Your task to perform on an android device: Go to notification settings Image 0: 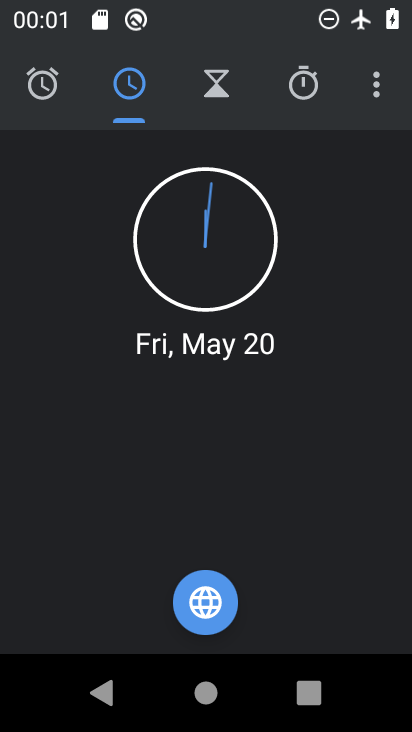
Step 0: press home button
Your task to perform on an android device: Go to notification settings Image 1: 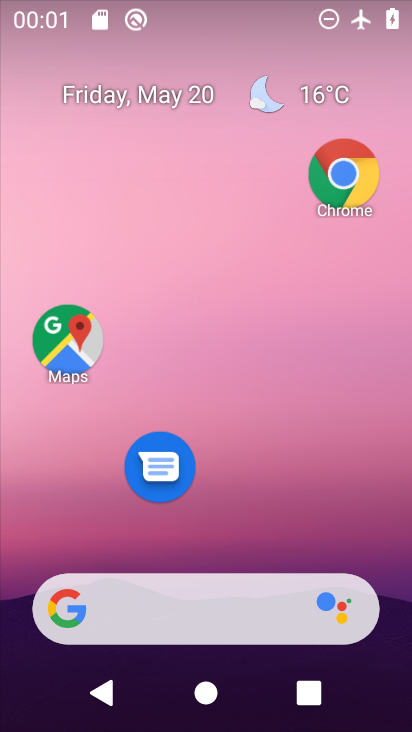
Step 1: drag from (253, 520) to (261, 234)
Your task to perform on an android device: Go to notification settings Image 2: 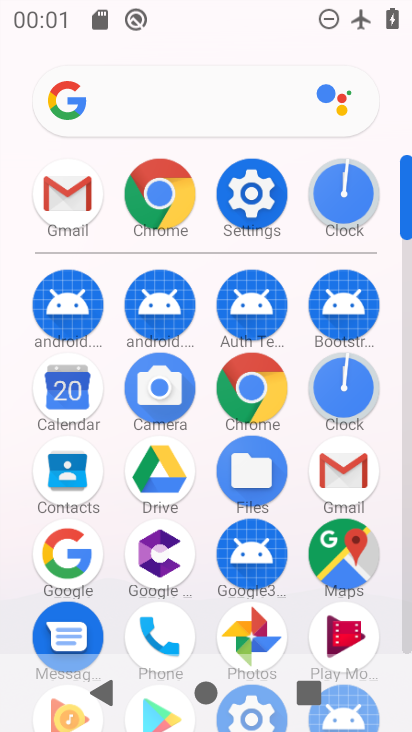
Step 2: click (245, 178)
Your task to perform on an android device: Go to notification settings Image 3: 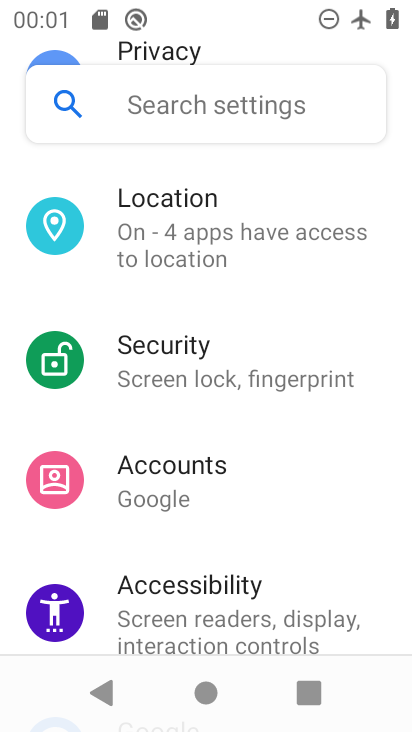
Step 3: drag from (239, 214) to (206, 581)
Your task to perform on an android device: Go to notification settings Image 4: 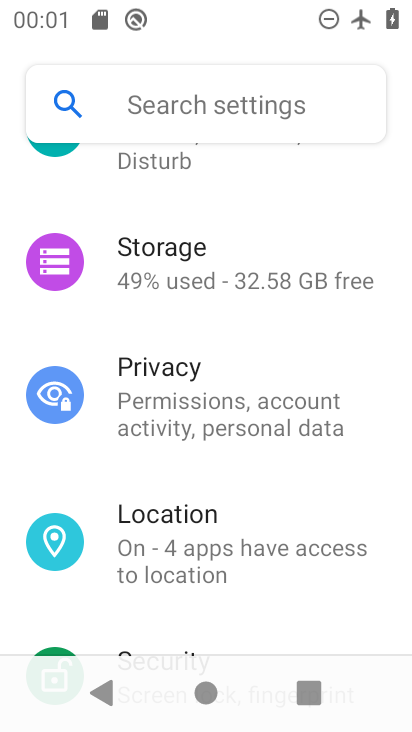
Step 4: drag from (213, 220) to (240, 667)
Your task to perform on an android device: Go to notification settings Image 5: 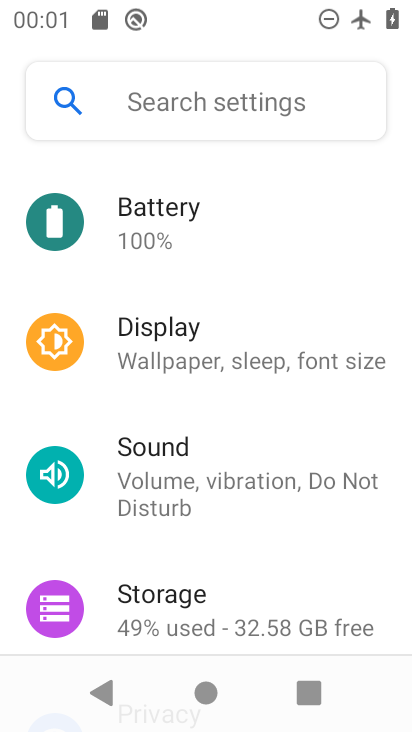
Step 5: drag from (260, 181) to (257, 621)
Your task to perform on an android device: Go to notification settings Image 6: 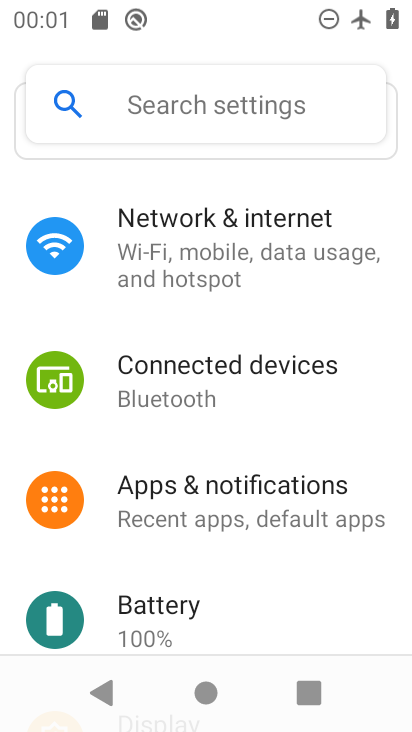
Step 6: click (201, 242)
Your task to perform on an android device: Go to notification settings Image 7: 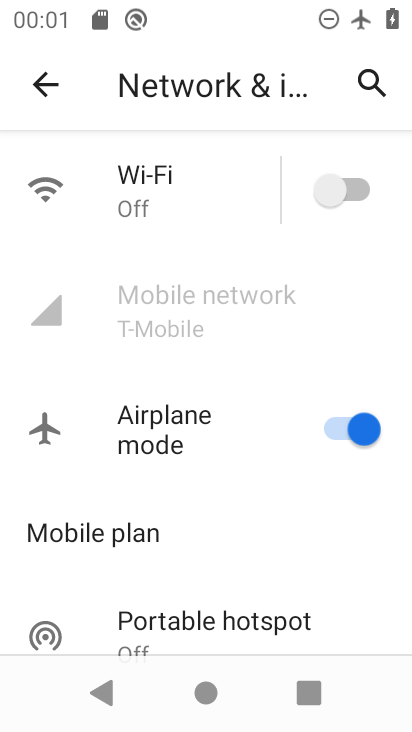
Step 7: drag from (178, 577) to (210, 187)
Your task to perform on an android device: Go to notification settings Image 8: 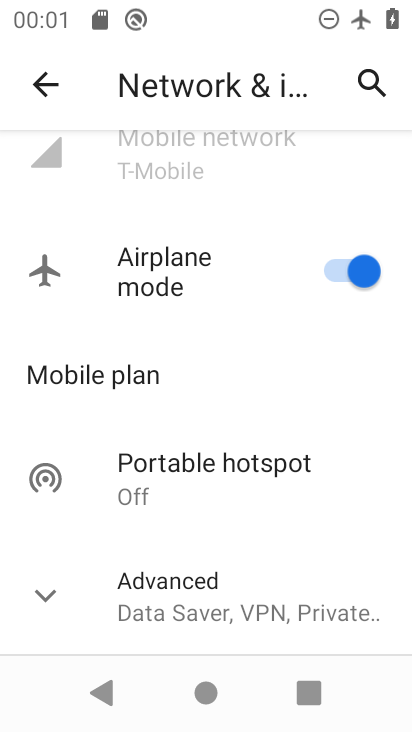
Step 8: drag from (210, 180) to (204, 608)
Your task to perform on an android device: Go to notification settings Image 9: 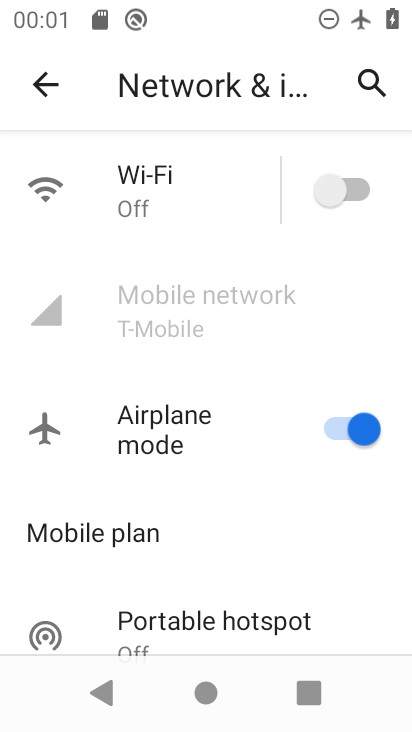
Step 9: click (50, 89)
Your task to perform on an android device: Go to notification settings Image 10: 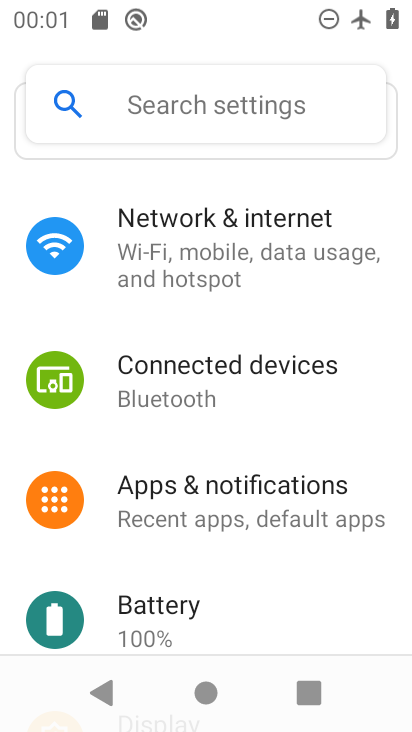
Step 10: click (243, 503)
Your task to perform on an android device: Go to notification settings Image 11: 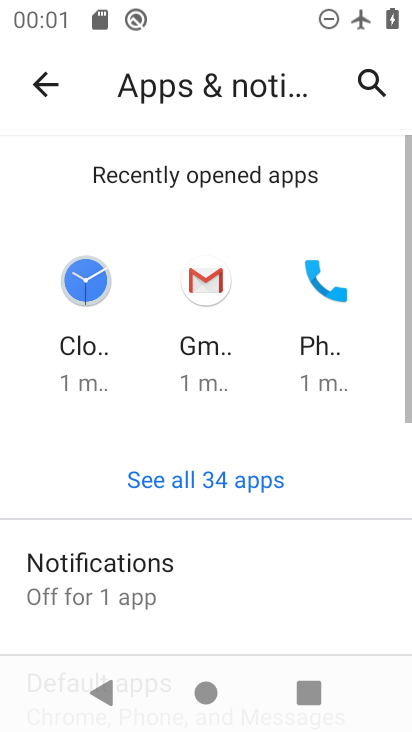
Step 11: click (235, 590)
Your task to perform on an android device: Go to notification settings Image 12: 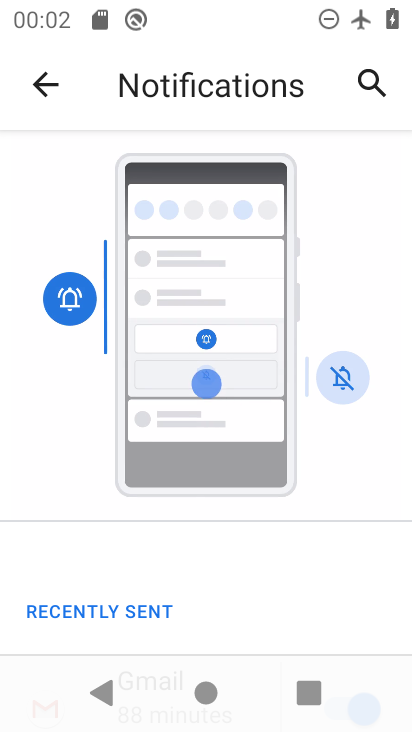
Step 12: task complete